Your task to perform on an android device: turn off data saver in the chrome app Image 0: 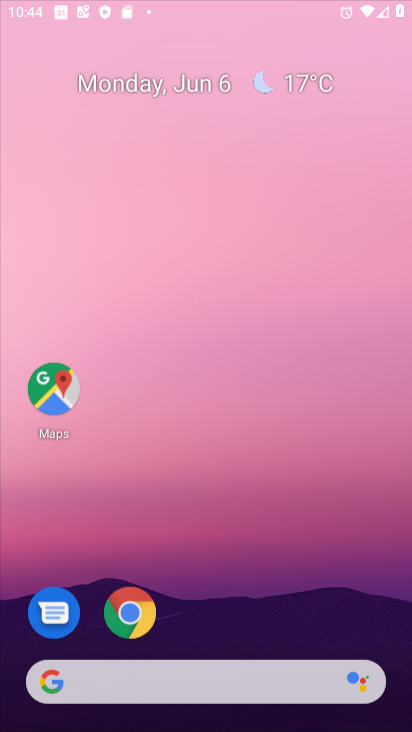
Step 0: press home button
Your task to perform on an android device: turn off data saver in the chrome app Image 1: 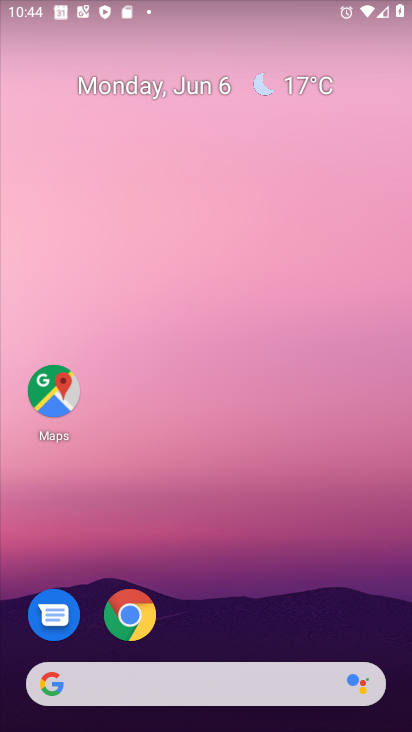
Step 1: click (126, 608)
Your task to perform on an android device: turn off data saver in the chrome app Image 2: 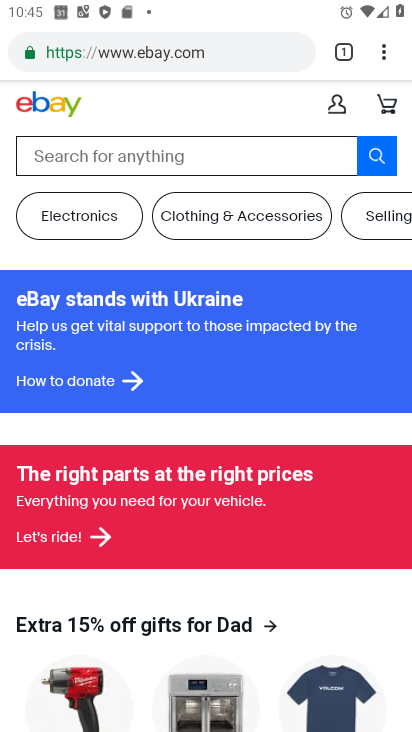
Step 2: click (383, 42)
Your task to perform on an android device: turn off data saver in the chrome app Image 3: 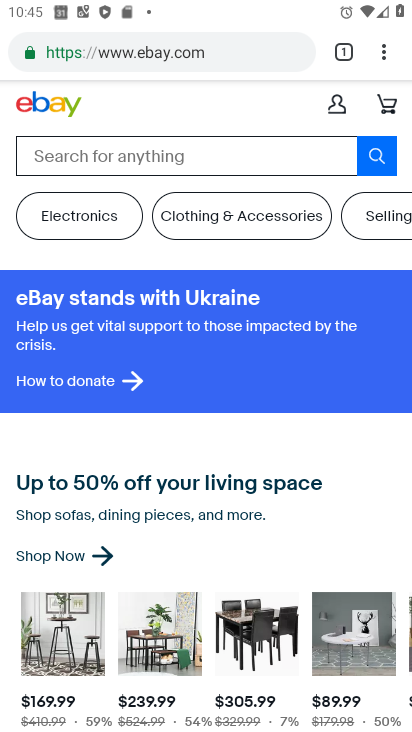
Step 3: click (385, 45)
Your task to perform on an android device: turn off data saver in the chrome app Image 4: 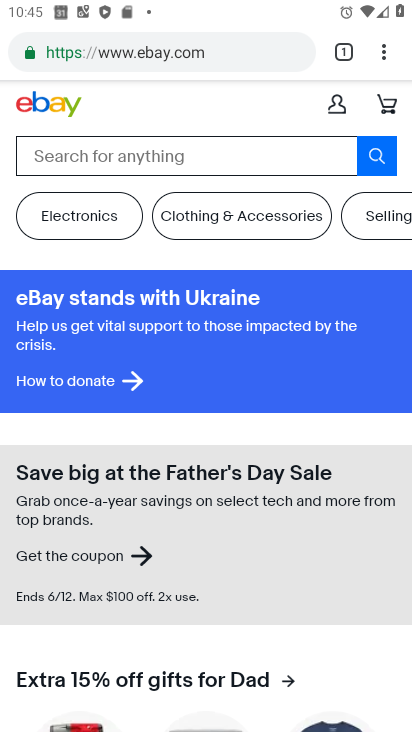
Step 4: click (384, 52)
Your task to perform on an android device: turn off data saver in the chrome app Image 5: 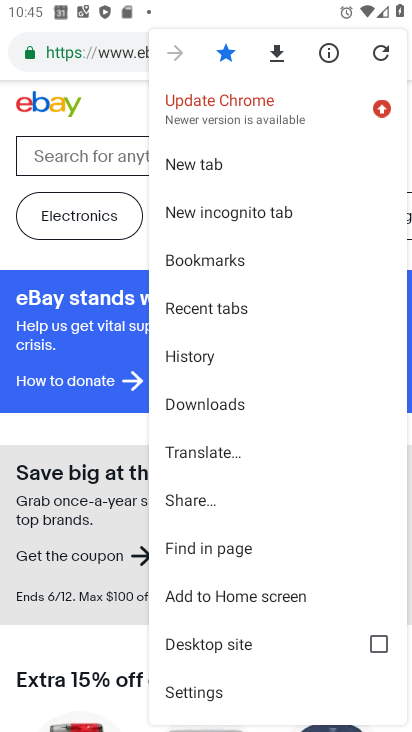
Step 5: click (231, 688)
Your task to perform on an android device: turn off data saver in the chrome app Image 6: 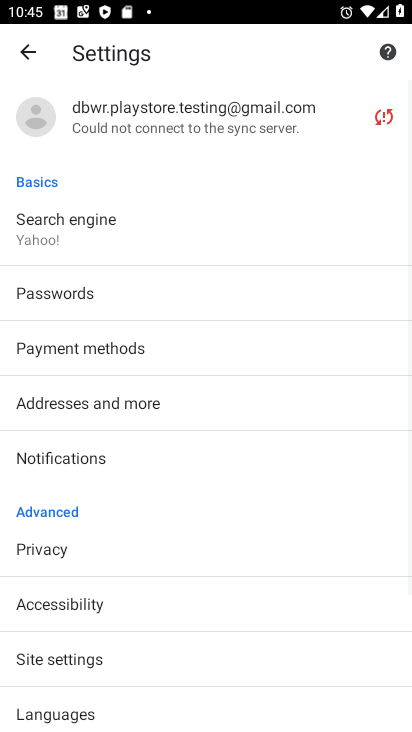
Step 6: drag from (157, 656) to (145, 249)
Your task to perform on an android device: turn off data saver in the chrome app Image 7: 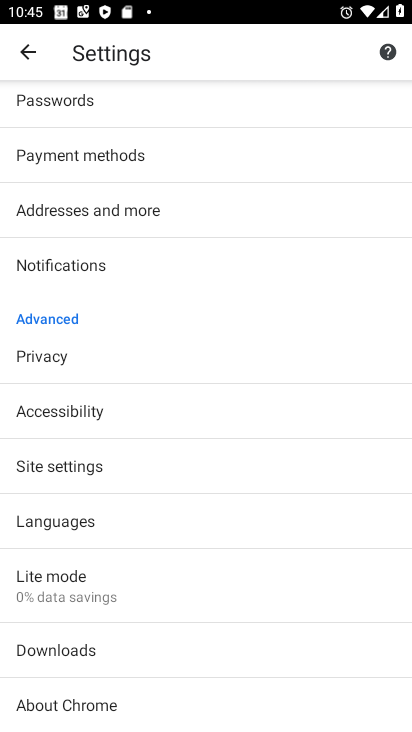
Step 7: click (122, 581)
Your task to perform on an android device: turn off data saver in the chrome app Image 8: 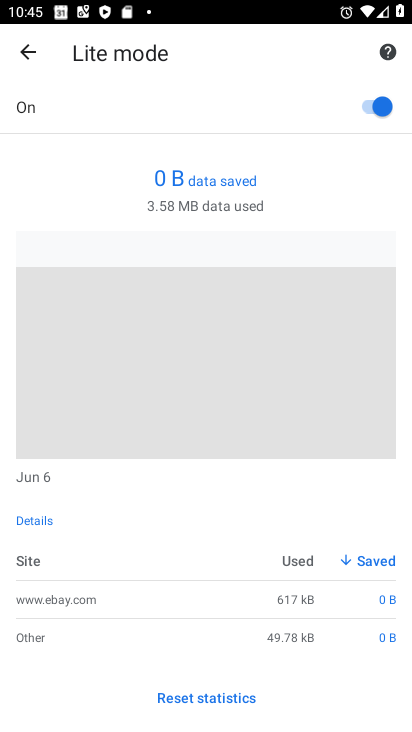
Step 8: click (373, 101)
Your task to perform on an android device: turn off data saver in the chrome app Image 9: 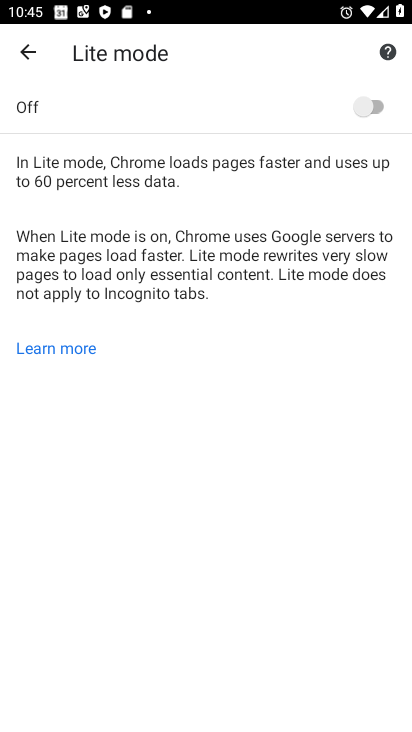
Step 9: task complete